Your task to perform on an android device: open the mobile data screen to see how much data has been used Image 0: 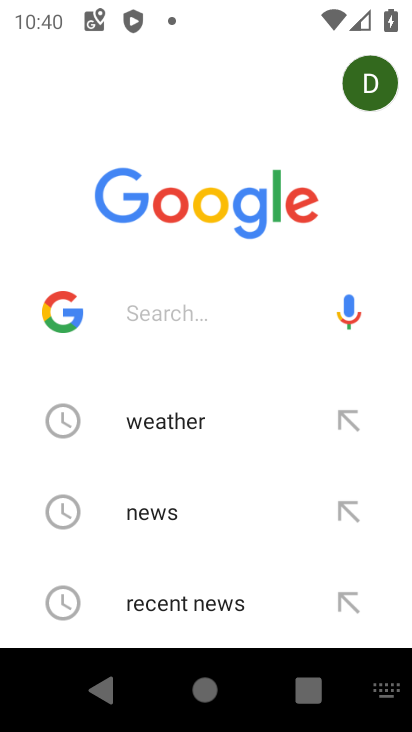
Step 0: press home button
Your task to perform on an android device: open the mobile data screen to see how much data has been used Image 1: 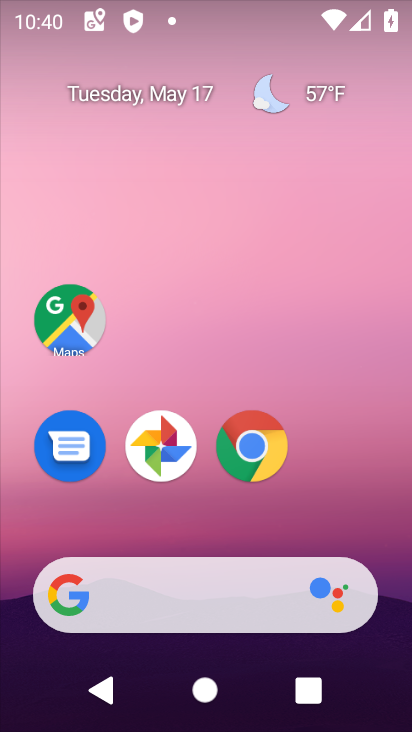
Step 1: drag from (161, 579) to (143, 10)
Your task to perform on an android device: open the mobile data screen to see how much data has been used Image 2: 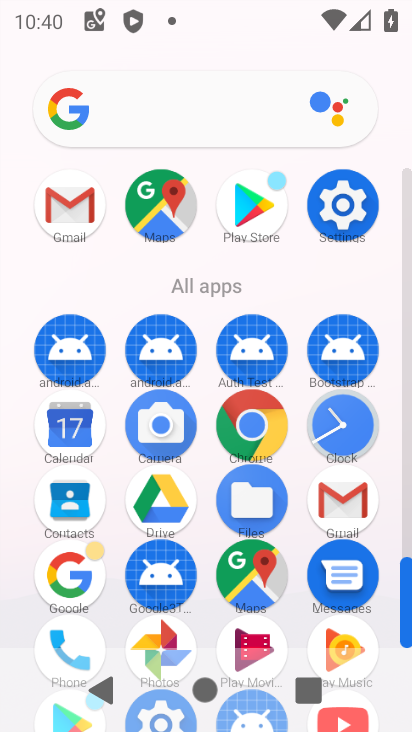
Step 2: click (323, 200)
Your task to perform on an android device: open the mobile data screen to see how much data has been used Image 3: 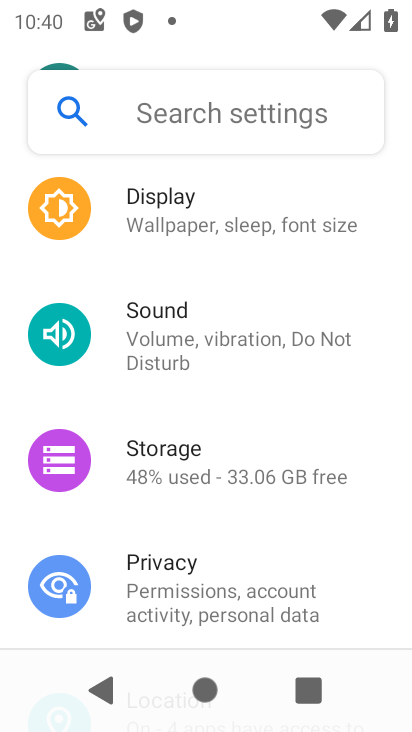
Step 3: drag from (144, 227) to (166, 592)
Your task to perform on an android device: open the mobile data screen to see how much data has been used Image 4: 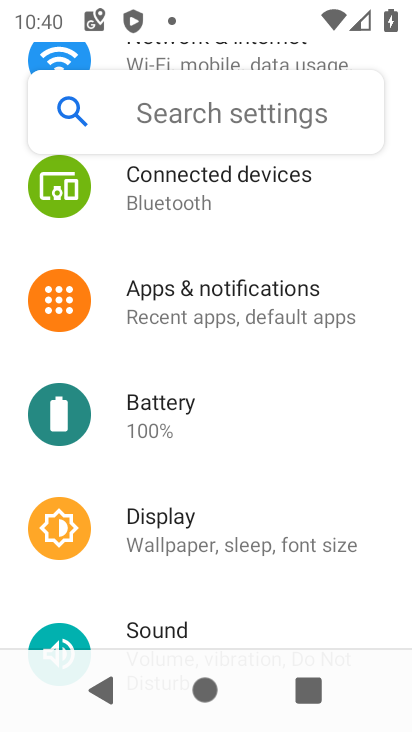
Step 4: drag from (151, 193) to (189, 491)
Your task to perform on an android device: open the mobile data screen to see how much data has been used Image 5: 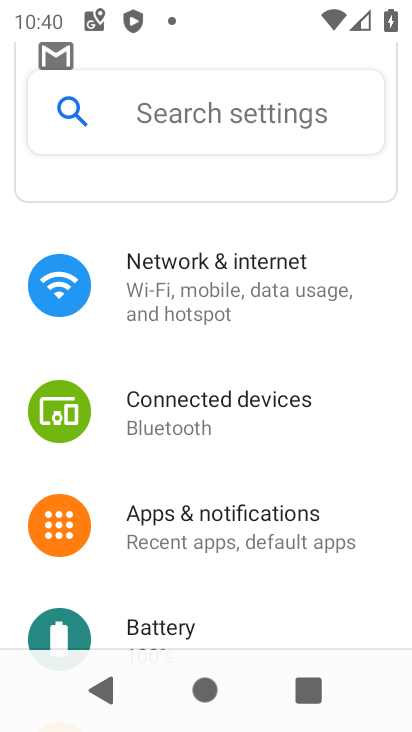
Step 5: click (139, 262)
Your task to perform on an android device: open the mobile data screen to see how much data has been used Image 6: 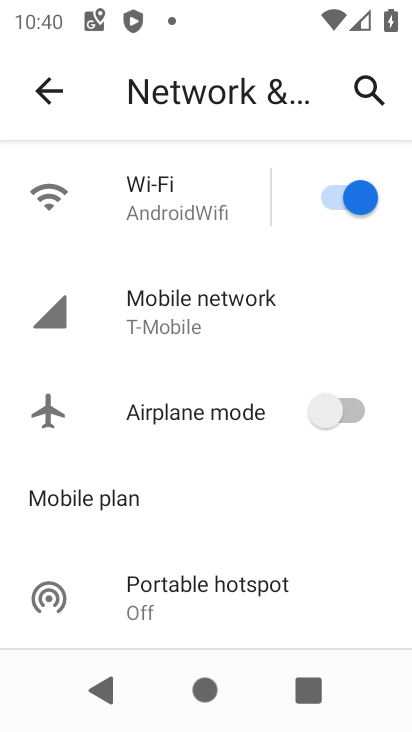
Step 6: click (184, 324)
Your task to perform on an android device: open the mobile data screen to see how much data has been used Image 7: 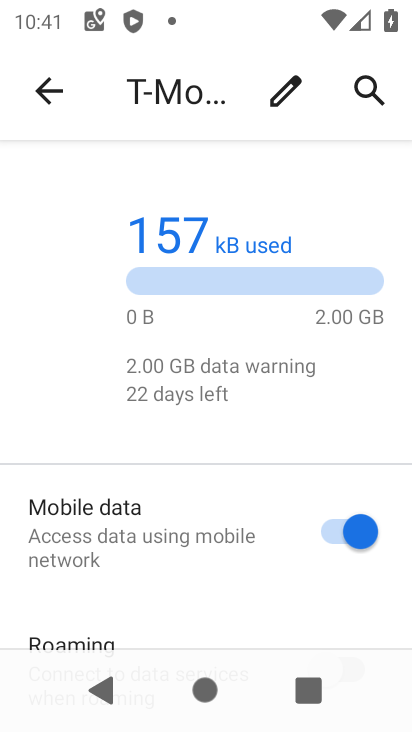
Step 7: task complete